Your task to perform on an android device: Go to settings Image 0: 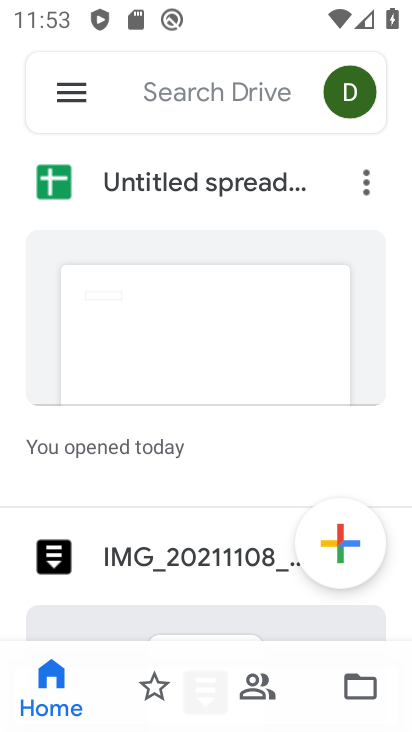
Step 0: press home button
Your task to perform on an android device: Go to settings Image 1: 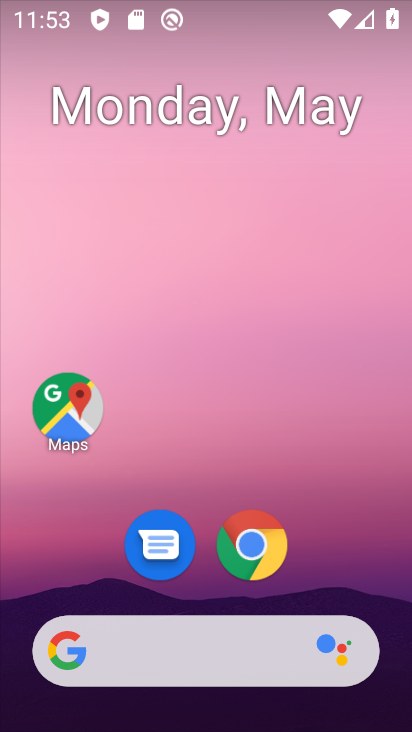
Step 1: drag from (324, 562) to (274, 133)
Your task to perform on an android device: Go to settings Image 2: 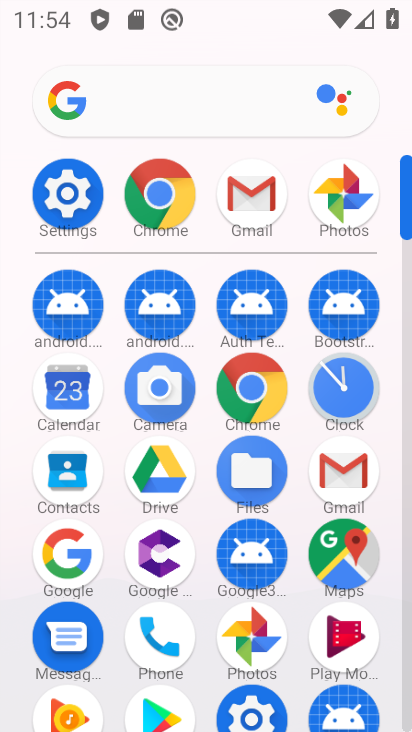
Step 2: click (72, 184)
Your task to perform on an android device: Go to settings Image 3: 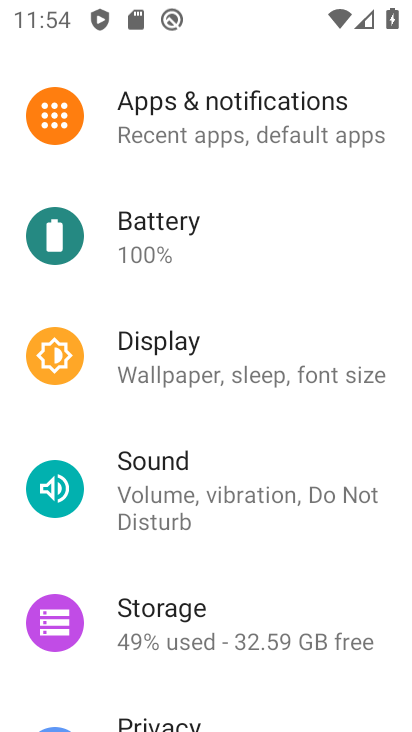
Step 3: task complete